Your task to perform on an android device: open sync settings in chrome Image 0: 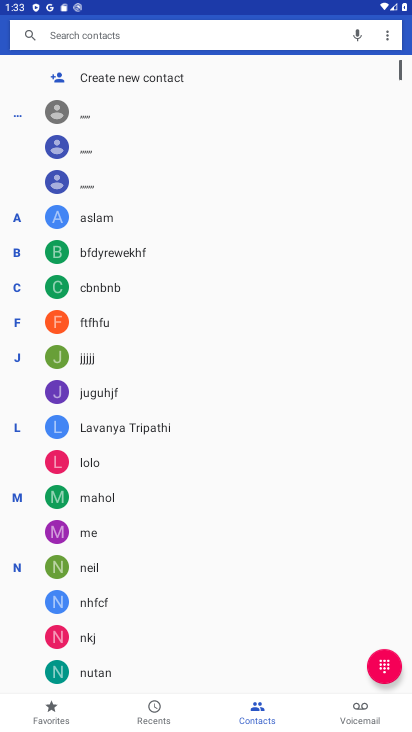
Step 0: press home button
Your task to perform on an android device: open sync settings in chrome Image 1: 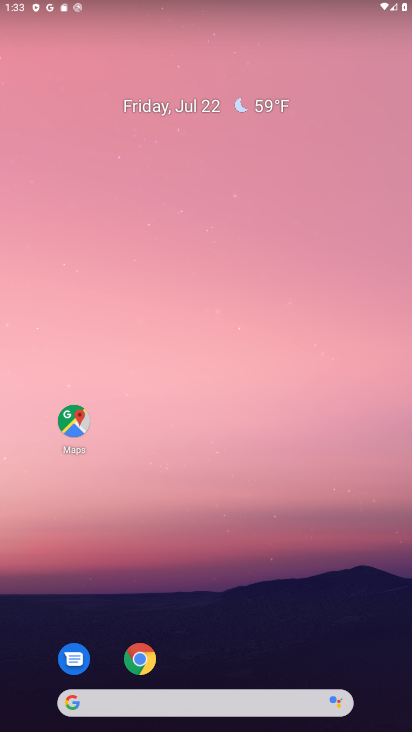
Step 1: drag from (232, 557) to (78, 5)
Your task to perform on an android device: open sync settings in chrome Image 2: 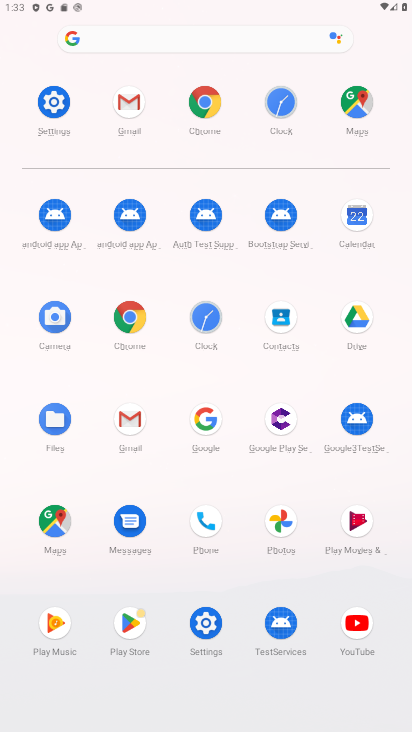
Step 2: click (214, 109)
Your task to perform on an android device: open sync settings in chrome Image 3: 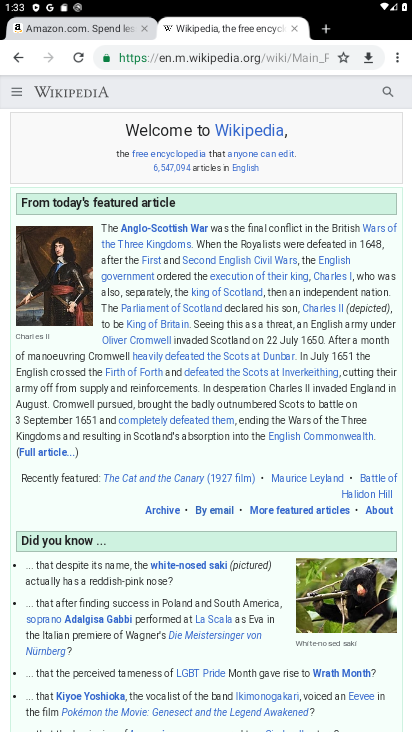
Step 3: drag from (396, 52) to (347, 386)
Your task to perform on an android device: open sync settings in chrome Image 4: 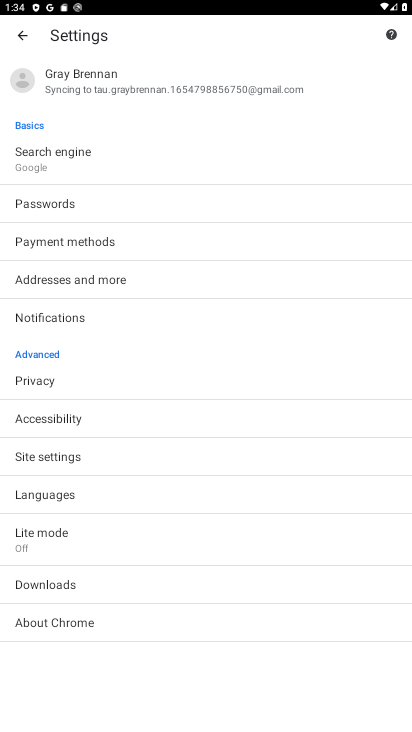
Step 4: click (54, 460)
Your task to perform on an android device: open sync settings in chrome Image 5: 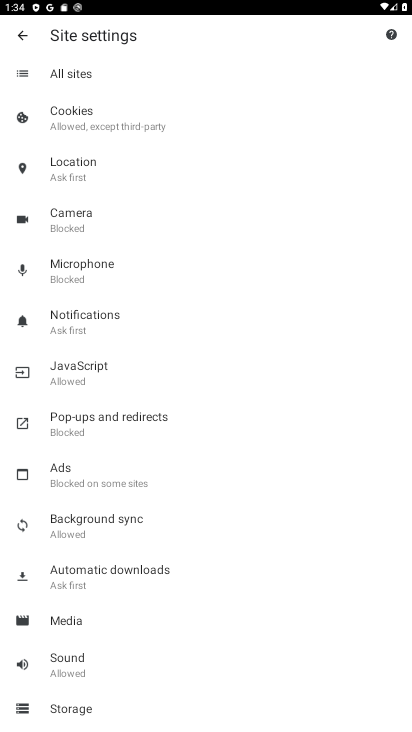
Step 5: click (84, 533)
Your task to perform on an android device: open sync settings in chrome Image 6: 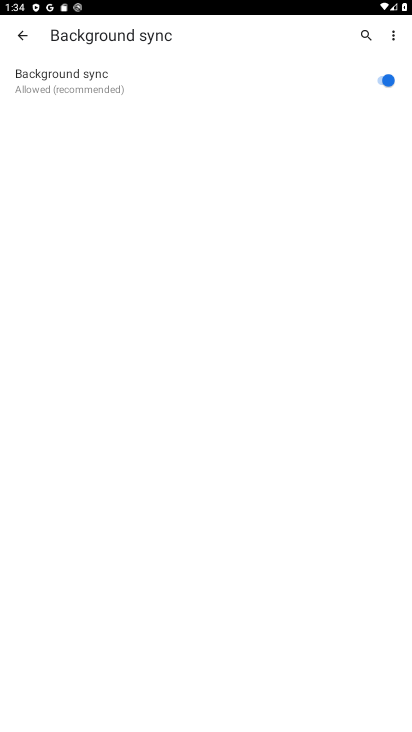
Step 6: task complete